Your task to perform on an android device: change alarm snooze length Image 0: 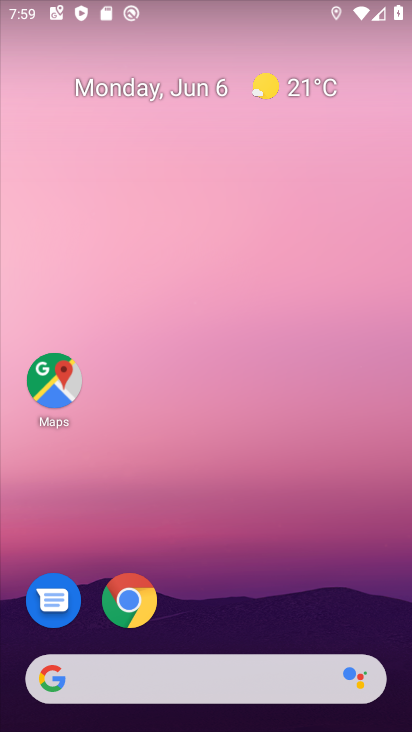
Step 0: drag from (362, 624) to (264, 118)
Your task to perform on an android device: change alarm snooze length Image 1: 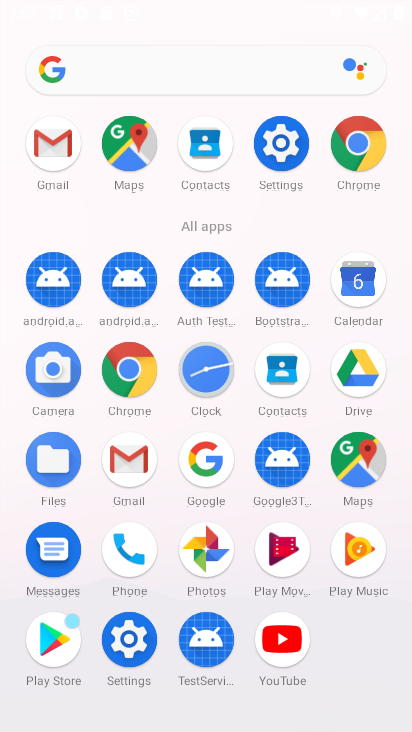
Step 1: click (205, 368)
Your task to perform on an android device: change alarm snooze length Image 2: 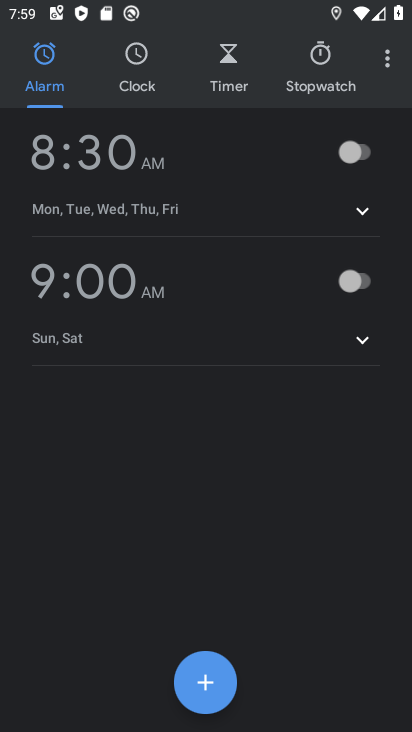
Step 2: click (384, 70)
Your task to perform on an android device: change alarm snooze length Image 3: 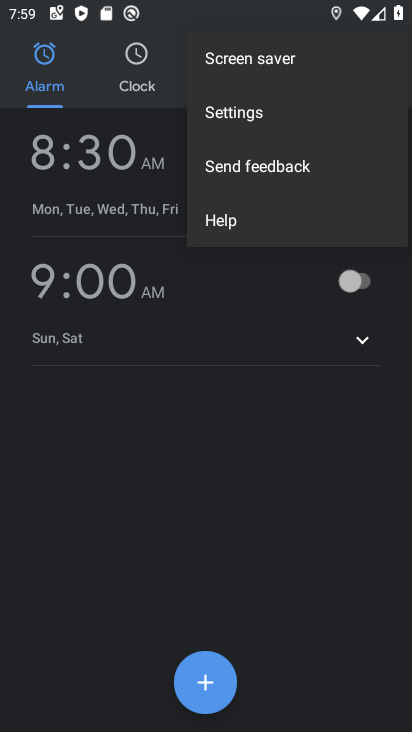
Step 3: click (228, 106)
Your task to perform on an android device: change alarm snooze length Image 4: 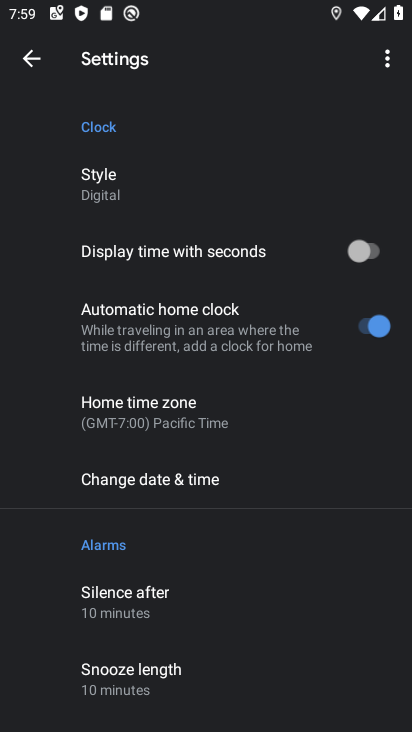
Step 4: drag from (235, 667) to (247, 298)
Your task to perform on an android device: change alarm snooze length Image 5: 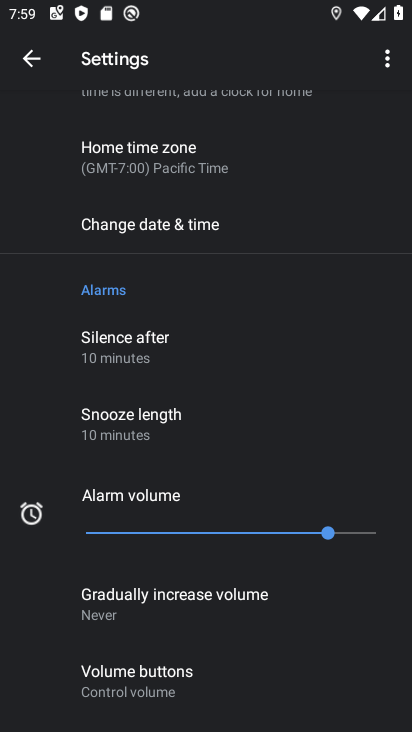
Step 5: click (108, 422)
Your task to perform on an android device: change alarm snooze length Image 6: 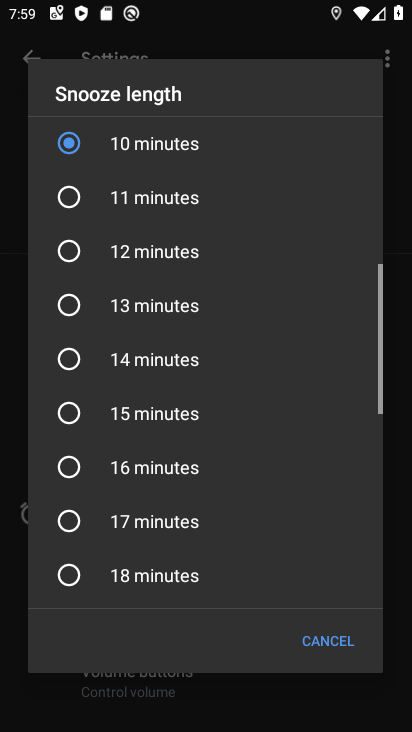
Step 6: click (75, 418)
Your task to perform on an android device: change alarm snooze length Image 7: 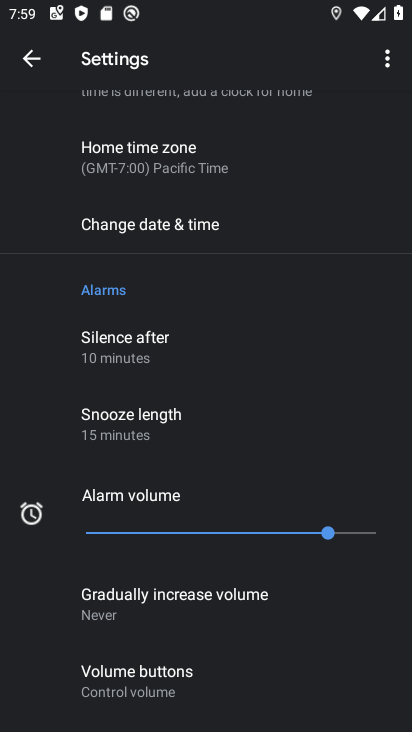
Step 7: task complete